Your task to perform on an android device: open chrome and create a bookmark for the current page Image 0: 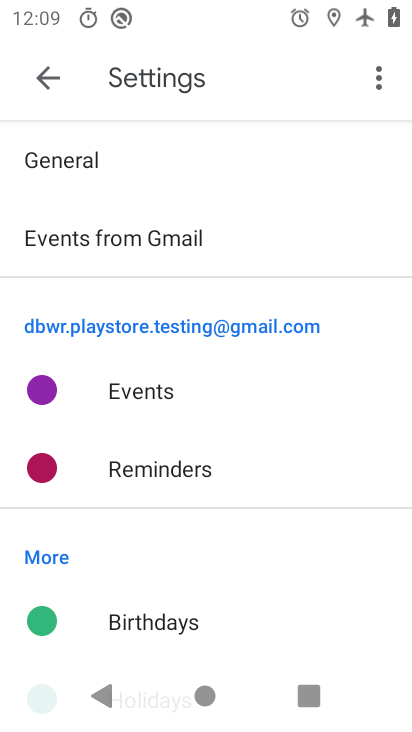
Step 0: press home button
Your task to perform on an android device: open chrome and create a bookmark for the current page Image 1: 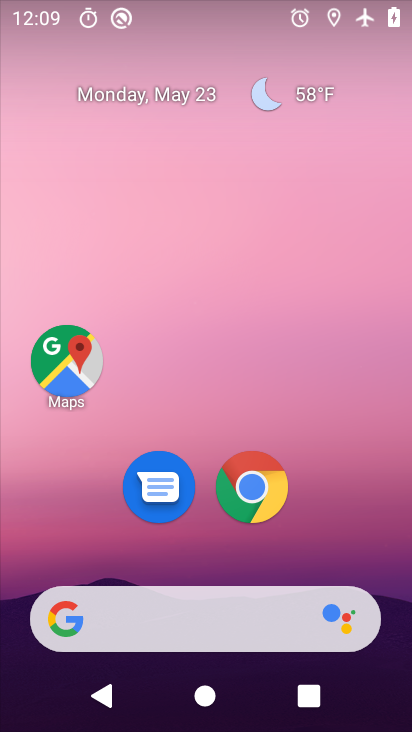
Step 1: drag from (341, 527) to (313, 157)
Your task to perform on an android device: open chrome and create a bookmark for the current page Image 2: 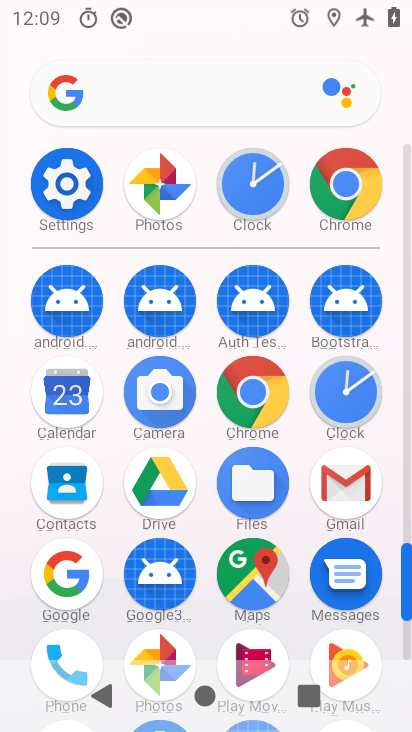
Step 2: click (262, 401)
Your task to perform on an android device: open chrome and create a bookmark for the current page Image 3: 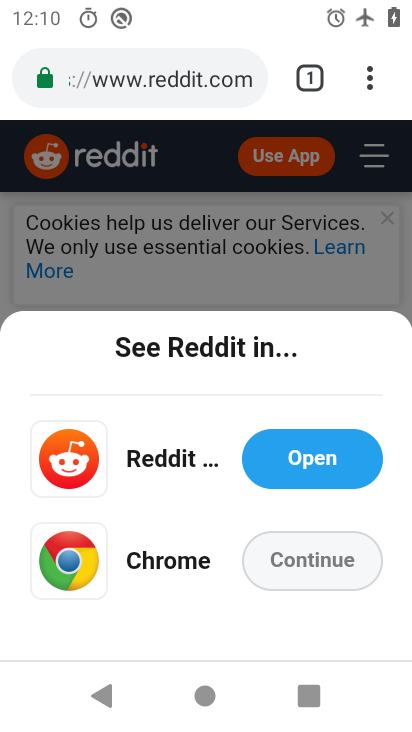
Step 3: task complete